Your task to perform on an android device: add a contact in the contacts app Image 0: 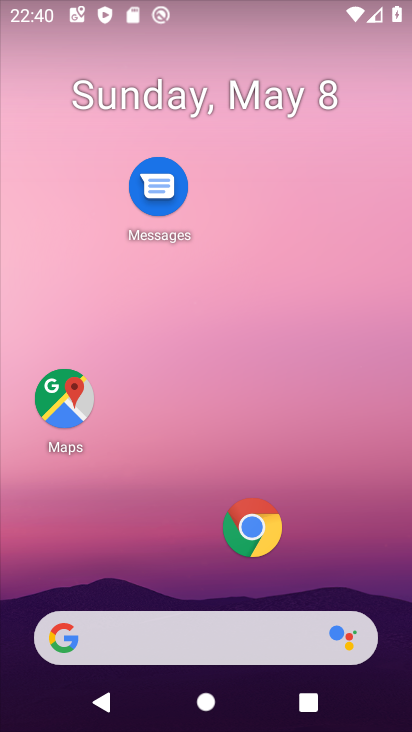
Step 0: drag from (171, 559) to (172, 56)
Your task to perform on an android device: add a contact in the contacts app Image 1: 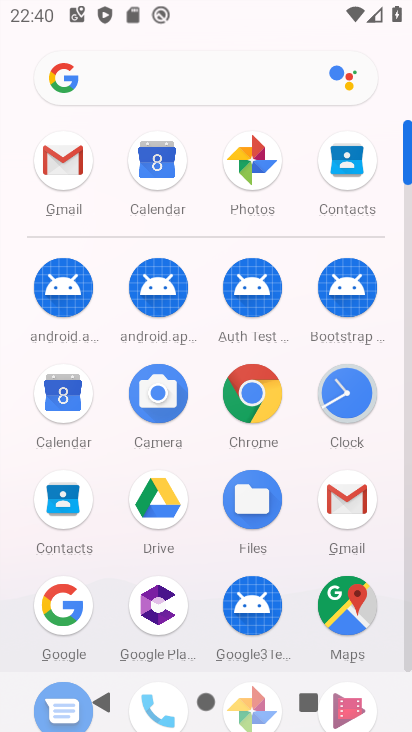
Step 1: click (59, 507)
Your task to perform on an android device: add a contact in the contacts app Image 2: 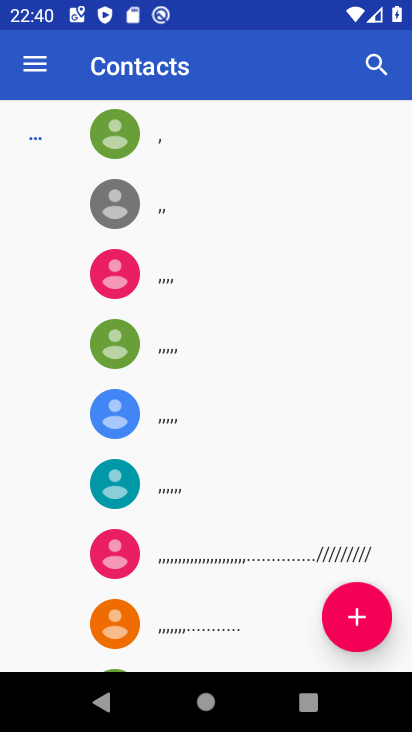
Step 2: click (354, 614)
Your task to perform on an android device: add a contact in the contacts app Image 3: 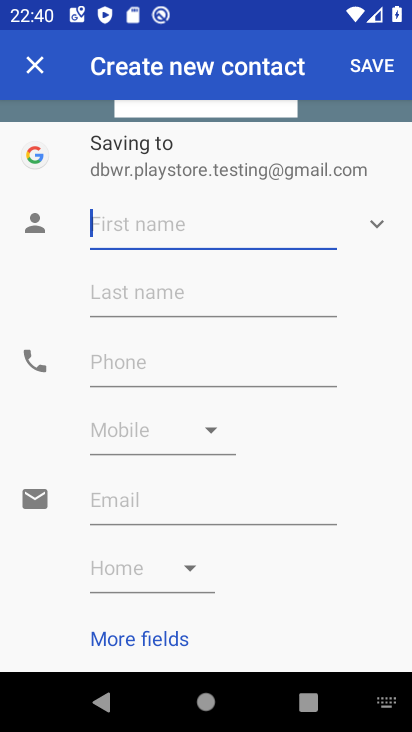
Step 3: type "bfgh"
Your task to perform on an android device: add a contact in the contacts app Image 4: 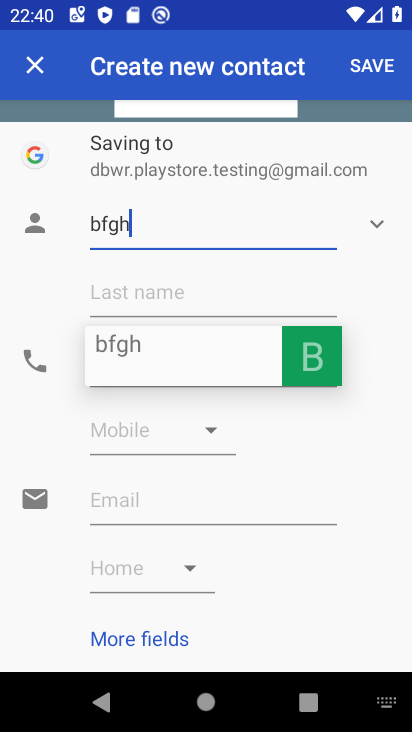
Step 4: click (366, 70)
Your task to perform on an android device: add a contact in the contacts app Image 5: 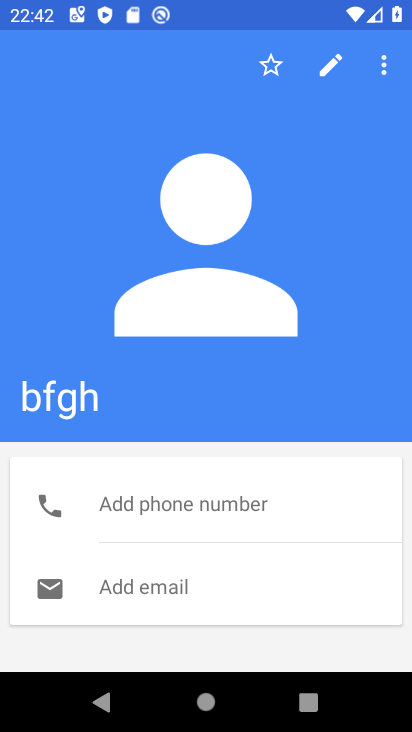
Step 5: task complete